Your task to perform on an android device: Search for vegetarian restaurants on Maps Image 0: 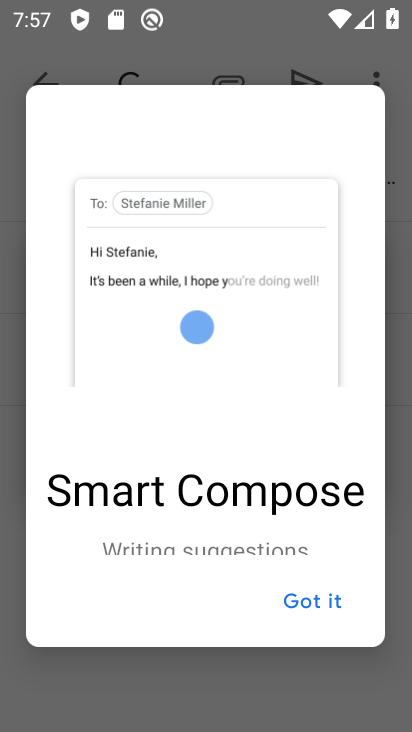
Step 0: press home button
Your task to perform on an android device: Search for vegetarian restaurants on Maps Image 1: 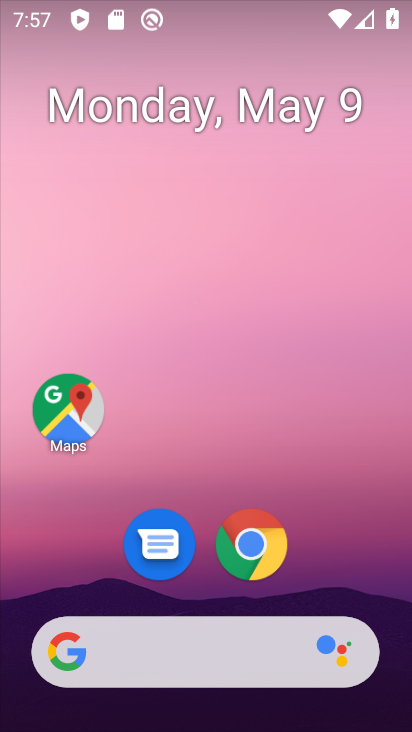
Step 1: click (76, 395)
Your task to perform on an android device: Search for vegetarian restaurants on Maps Image 2: 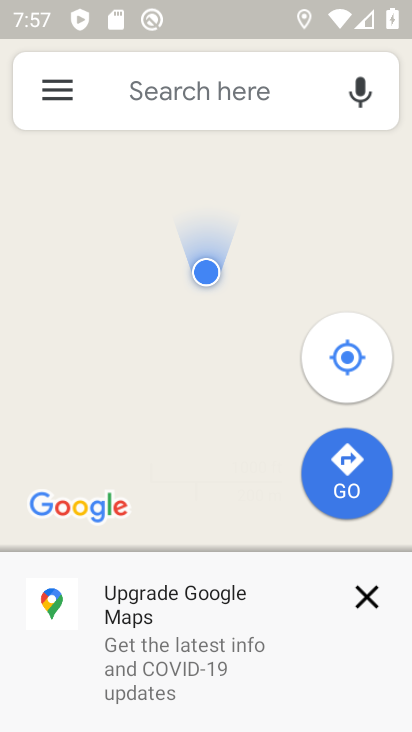
Step 2: click (145, 89)
Your task to perform on an android device: Search for vegetarian restaurants on Maps Image 3: 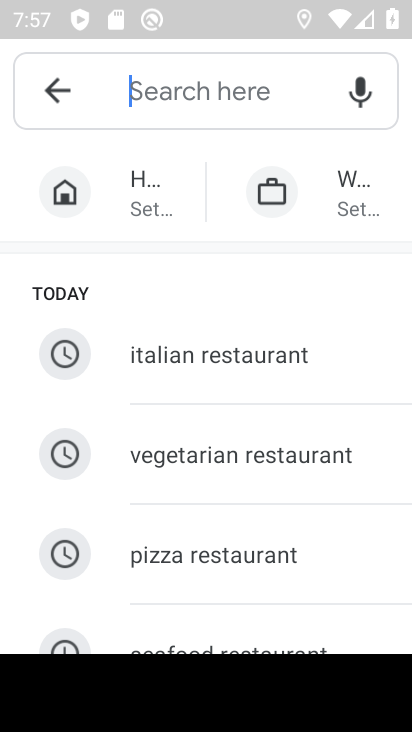
Step 3: type "vegetarian restaurants"
Your task to perform on an android device: Search for vegetarian restaurants on Maps Image 4: 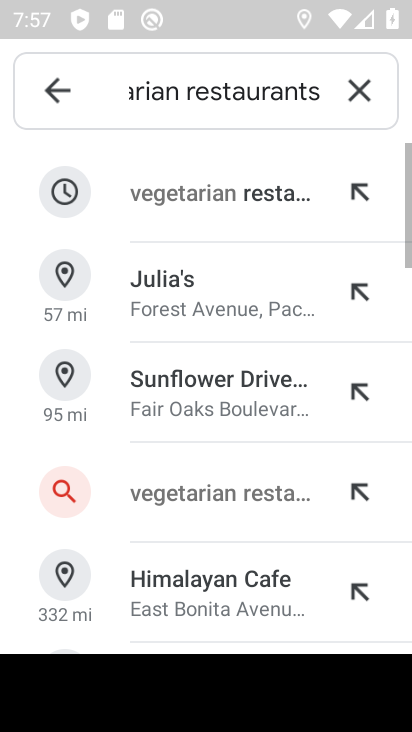
Step 4: click (203, 184)
Your task to perform on an android device: Search for vegetarian restaurants on Maps Image 5: 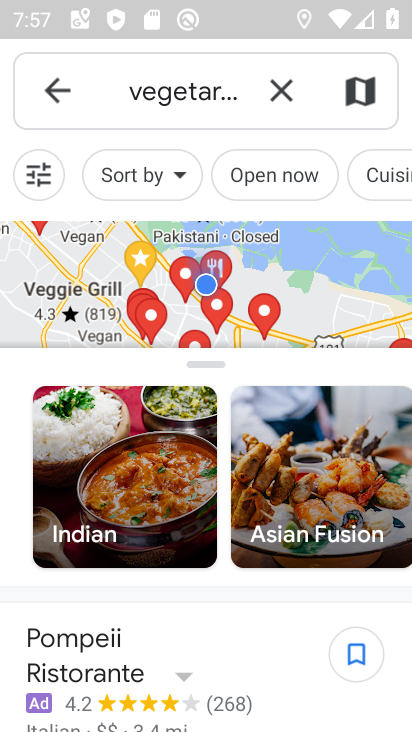
Step 5: task complete